Your task to perform on an android device: What's the weather going to be tomorrow? Image 0: 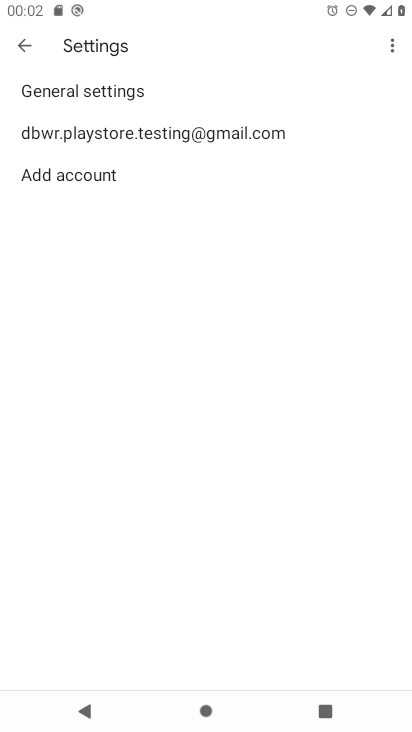
Step 0: press home button
Your task to perform on an android device: What's the weather going to be tomorrow? Image 1: 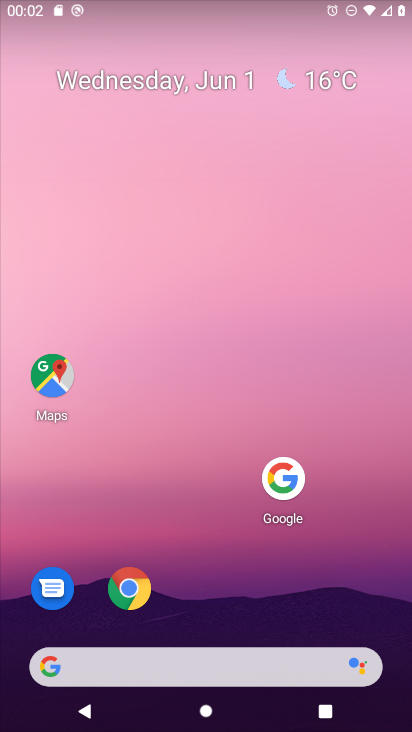
Step 1: click (289, 80)
Your task to perform on an android device: What's the weather going to be tomorrow? Image 2: 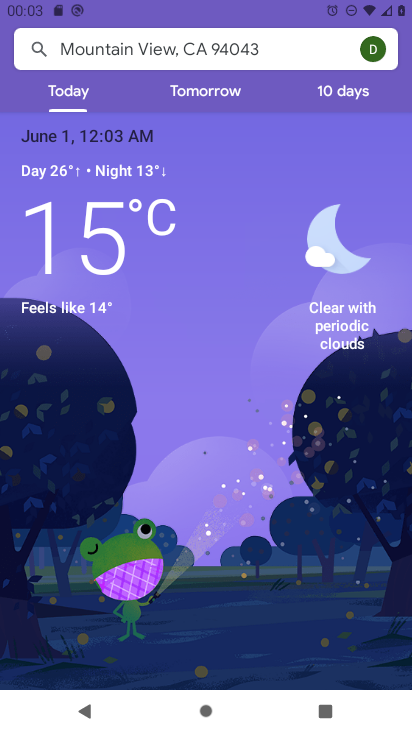
Step 2: click (198, 92)
Your task to perform on an android device: What's the weather going to be tomorrow? Image 3: 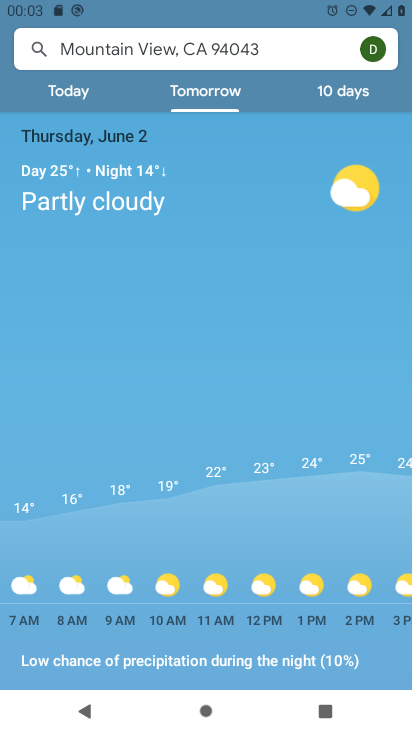
Step 3: task complete